Your task to perform on an android device: What is the recent news? Image 0: 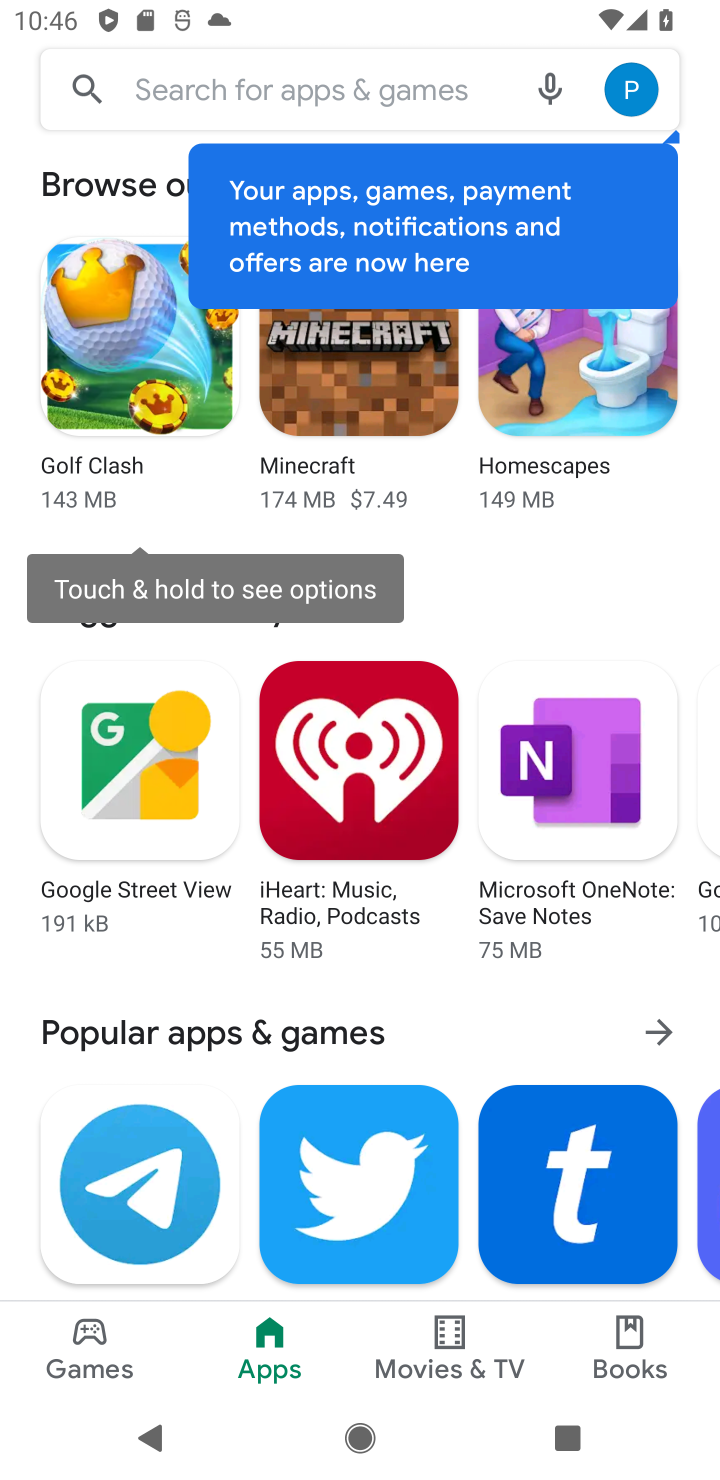
Step 0: press home button
Your task to perform on an android device: What is the recent news? Image 1: 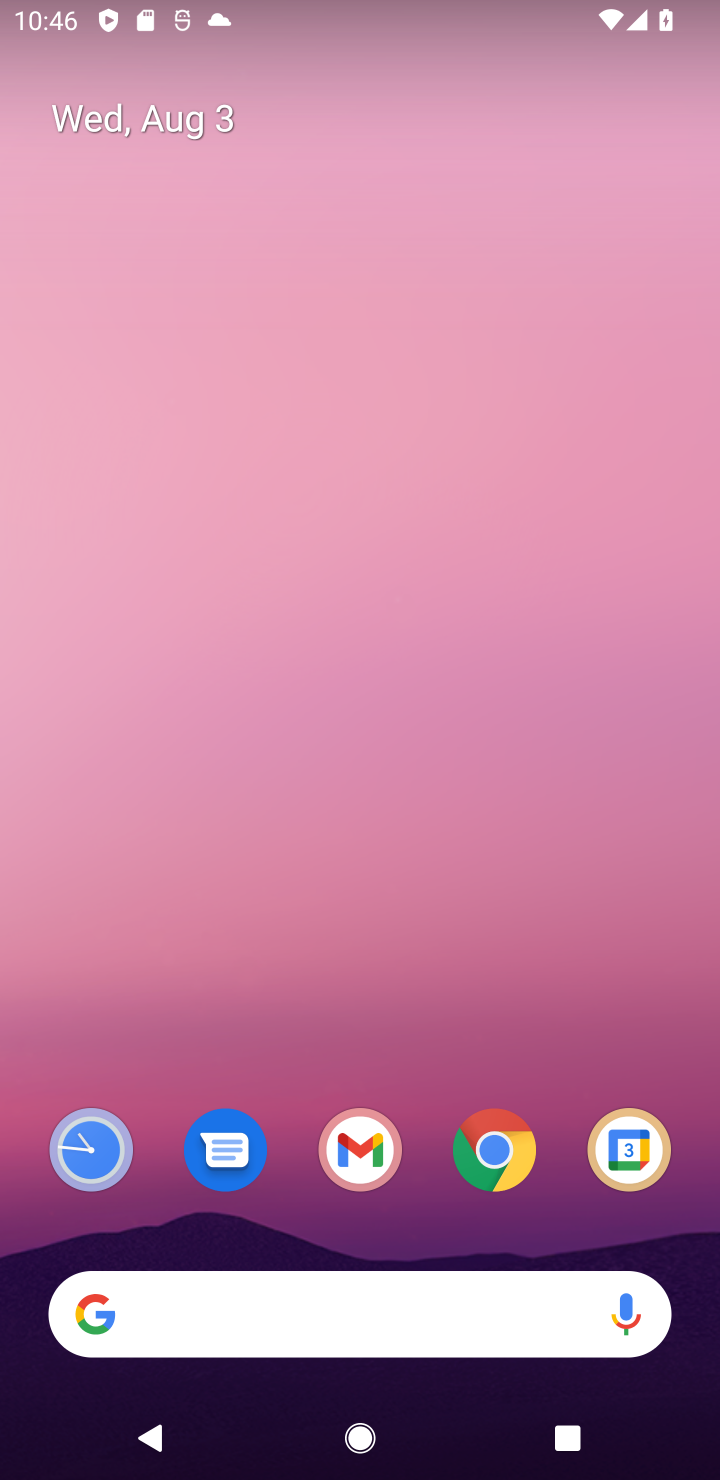
Step 1: task complete